Your task to perform on an android device: What's the weather? Image 0: 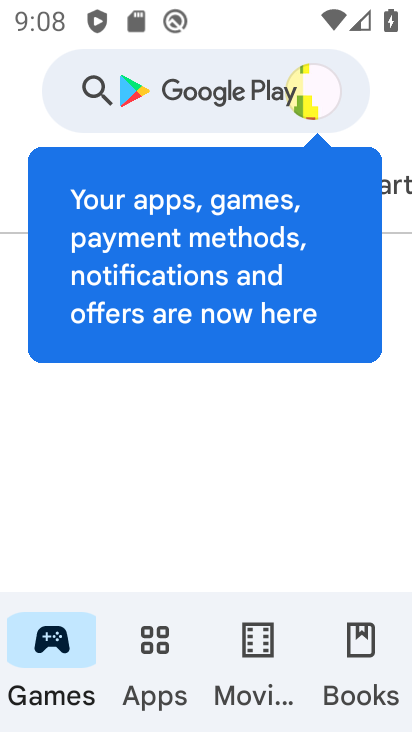
Step 0: press home button
Your task to perform on an android device: What's the weather? Image 1: 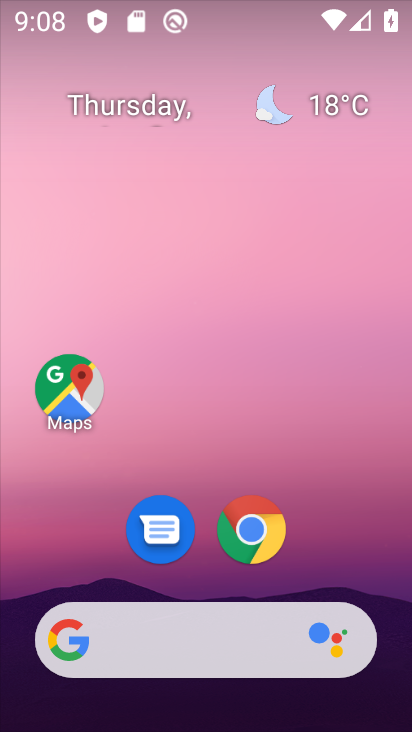
Step 1: drag from (0, 296) to (411, 309)
Your task to perform on an android device: What's the weather? Image 2: 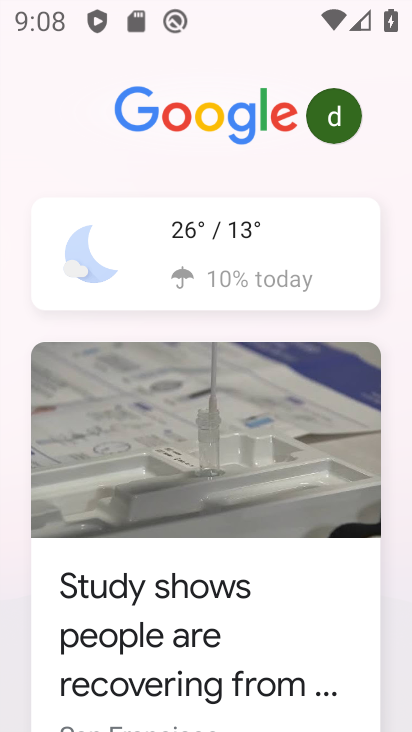
Step 2: drag from (195, 670) to (234, 345)
Your task to perform on an android device: What's the weather? Image 3: 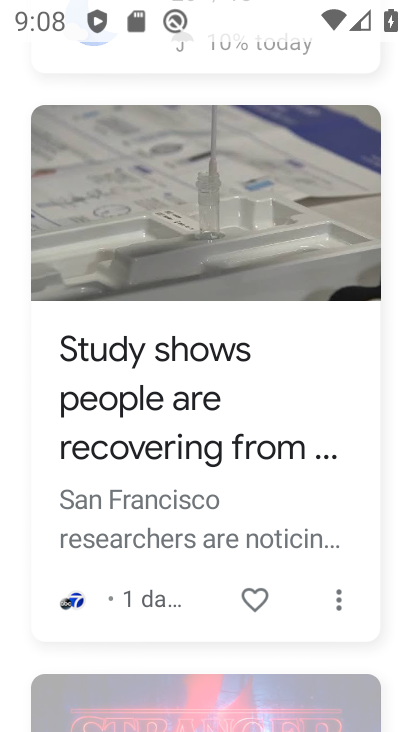
Step 3: click (244, 216)
Your task to perform on an android device: What's the weather? Image 4: 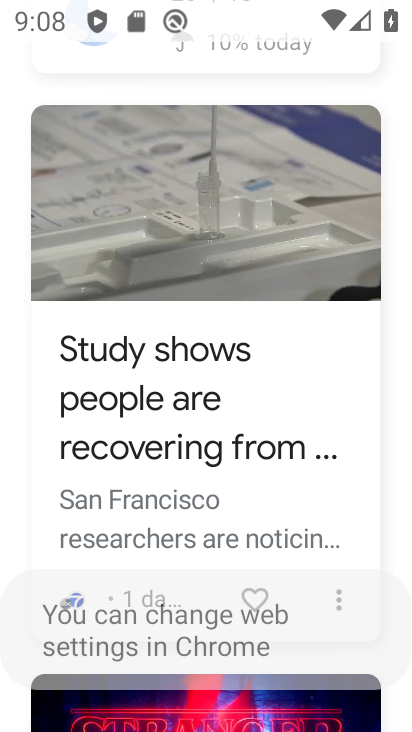
Step 4: drag from (269, 187) to (260, 488)
Your task to perform on an android device: What's the weather? Image 5: 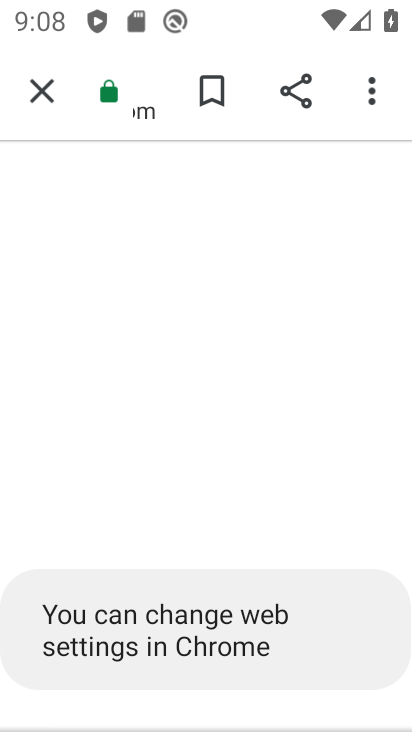
Step 5: click (29, 93)
Your task to perform on an android device: What's the weather? Image 6: 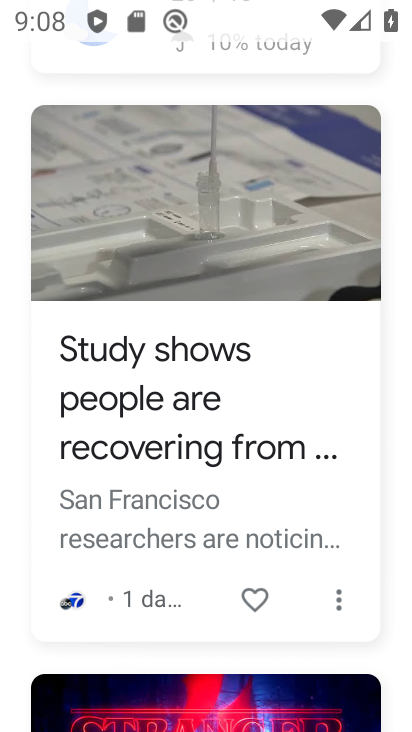
Step 6: drag from (236, 156) to (318, 537)
Your task to perform on an android device: What's the weather? Image 7: 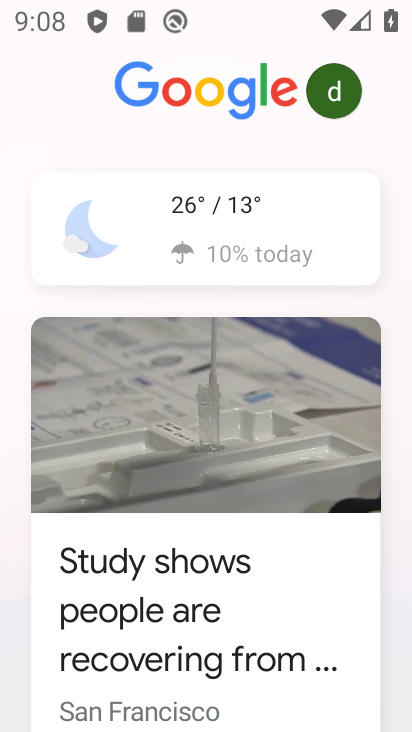
Step 7: click (222, 206)
Your task to perform on an android device: What's the weather? Image 8: 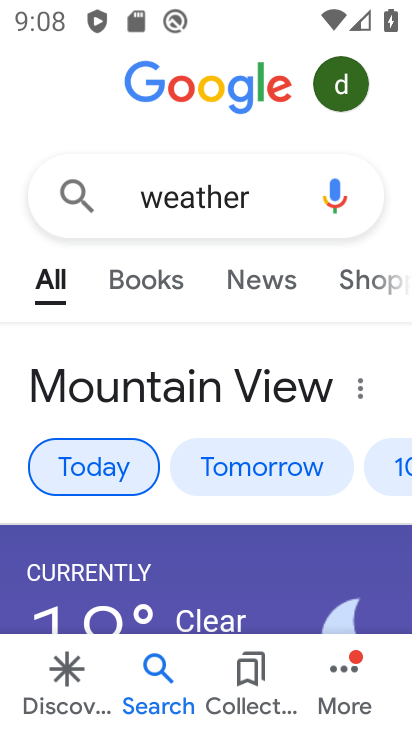
Step 8: click (88, 459)
Your task to perform on an android device: What's the weather? Image 9: 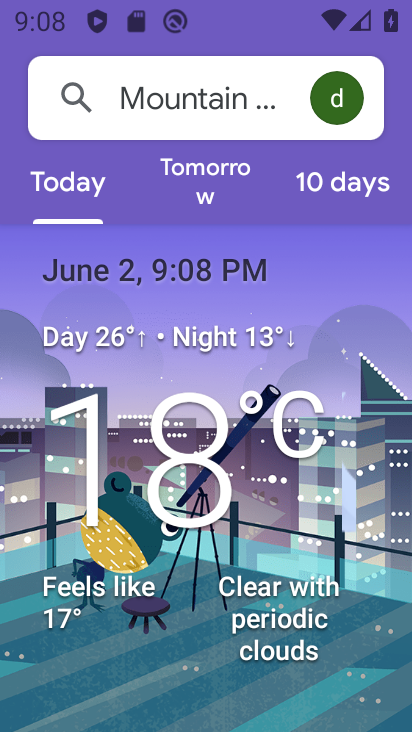
Step 9: task complete